Your task to perform on an android device: Open Maps and search for coffee Image 0: 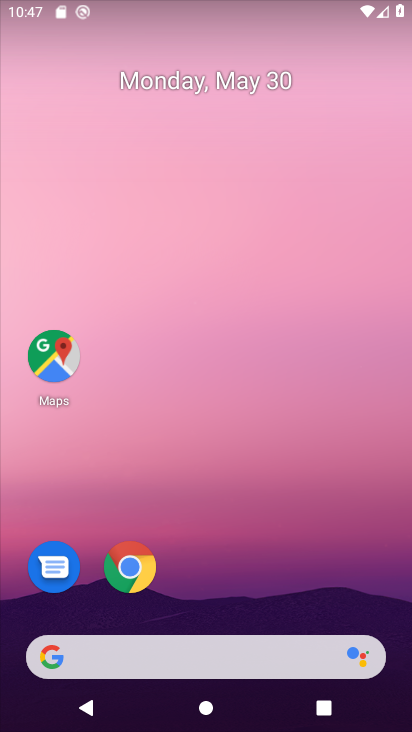
Step 0: click (58, 362)
Your task to perform on an android device: Open Maps and search for coffee Image 1: 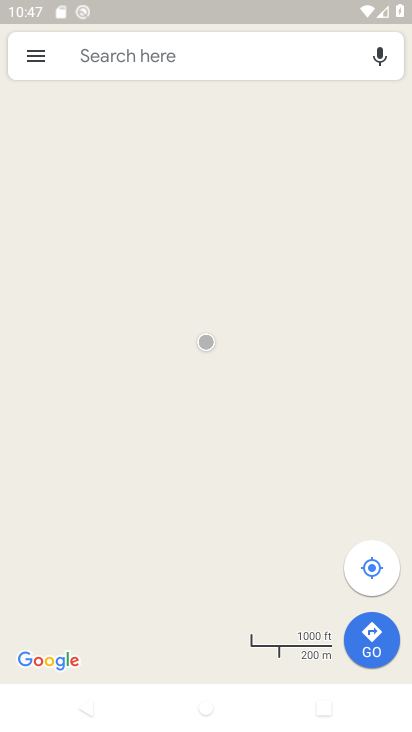
Step 1: click (222, 64)
Your task to perform on an android device: Open Maps and search for coffee Image 2: 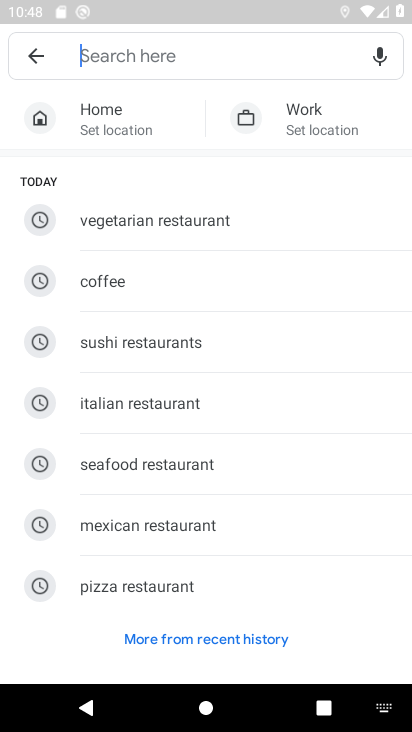
Step 2: type "coffee"
Your task to perform on an android device: Open Maps and search for coffee Image 3: 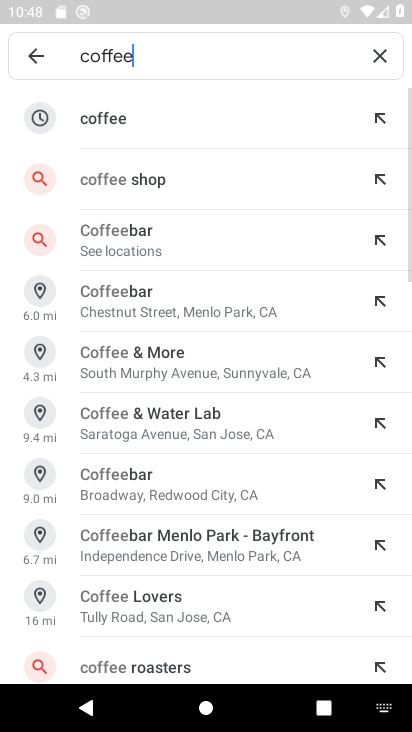
Step 3: click (150, 116)
Your task to perform on an android device: Open Maps and search for coffee Image 4: 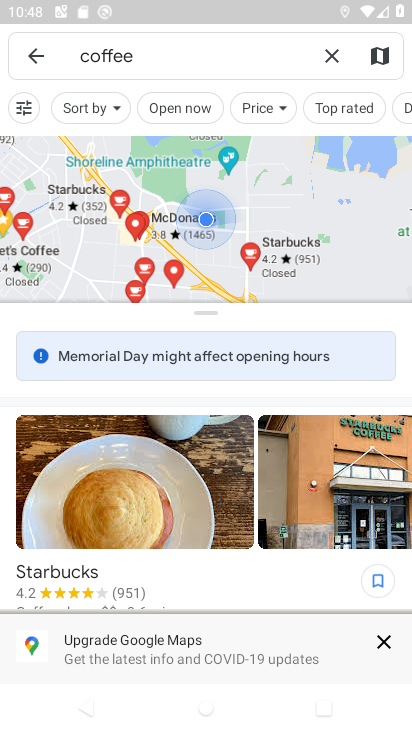
Step 4: task complete